Your task to perform on an android device: Go to display settings Image 0: 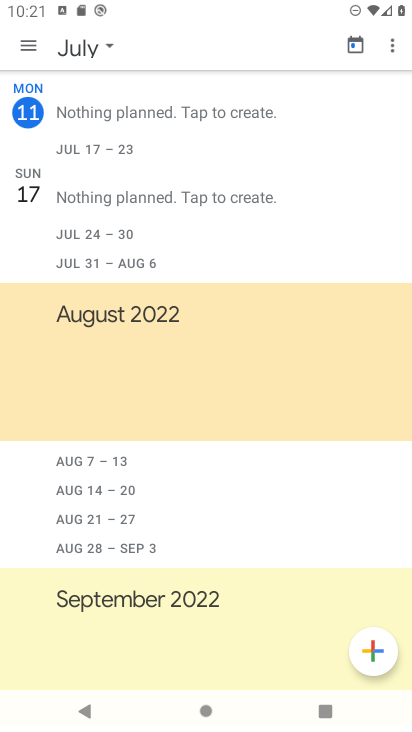
Step 0: press home button
Your task to perform on an android device: Go to display settings Image 1: 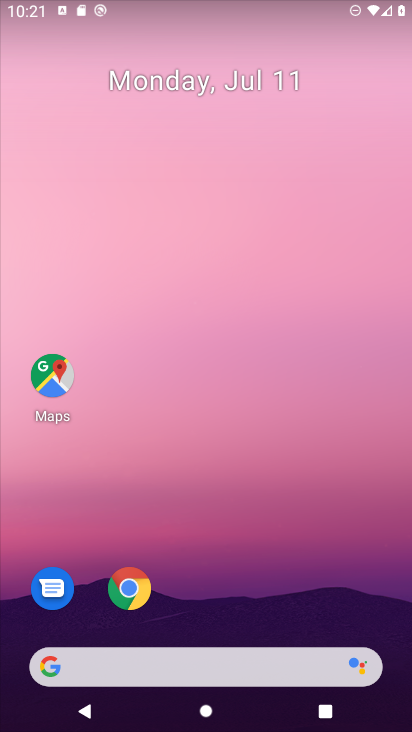
Step 1: drag from (376, 650) to (101, 41)
Your task to perform on an android device: Go to display settings Image 2: 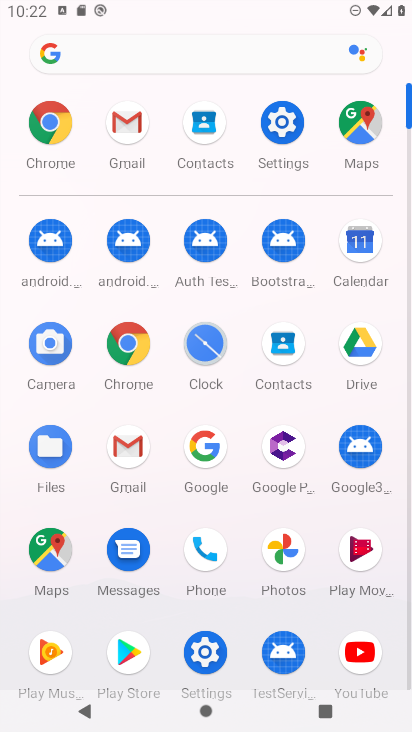
Step 2: click (214, 652)
Your task to perform on an android device: Go to display settings Image 3: 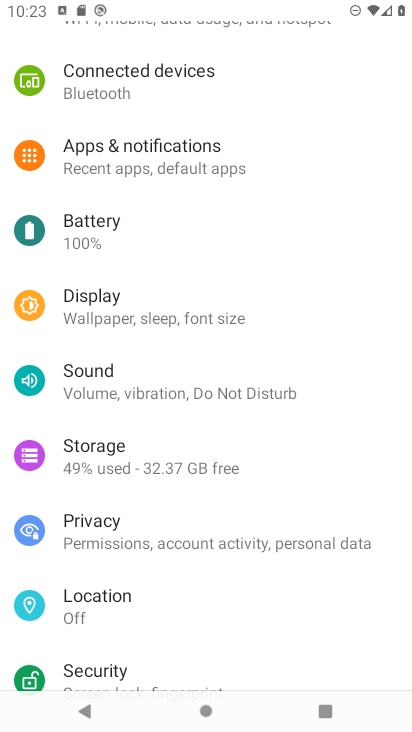
Step 3: click (160, 295)
Your task to perform on an android device: Go to display settings Image 4: 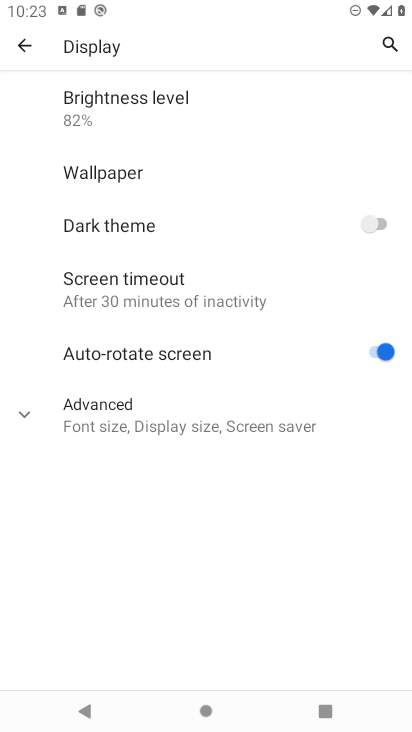
Step 4: task complete